Your task to perform on an android device: check the backup settings in the google photos Image 0: 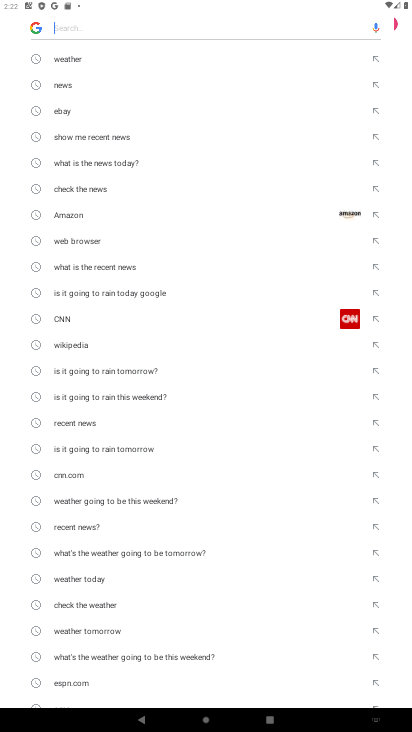
Step 0: press back button
Your task to perform on an android device: check the backup settings in the google photos Image 1: 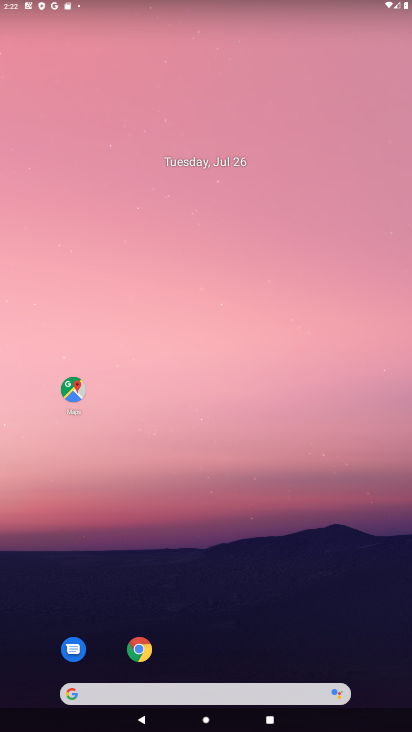
Step 1: drag from (184, 682) to (205, 3)
Your task to perform on an android device: check the backup settings in the google photos Image 2: 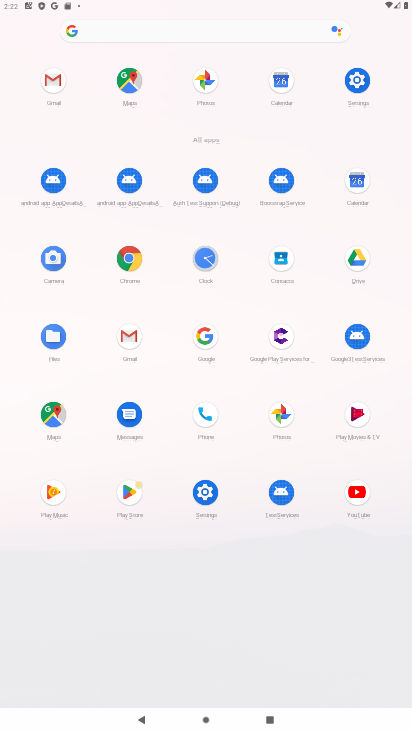
Step 2: click (279, 409)
Your task to perform on an android device: check the backup settings in the google photos Image 3: 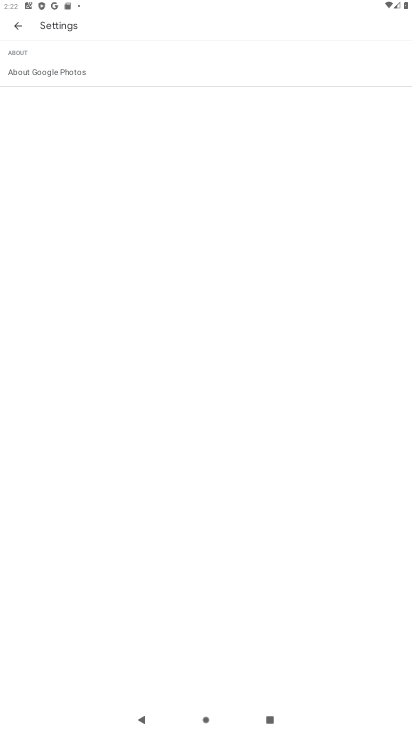
Step 3: click (16, 27)
Your task to perform on an android device: check the backup settings in the google photos Image 4: 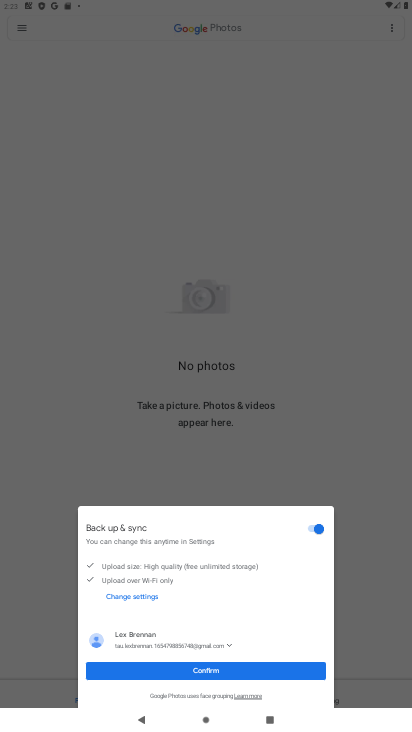
Step 4: click (235, 666)
Your task to perform on an android device: check the backup settings in the google photos Image 5: 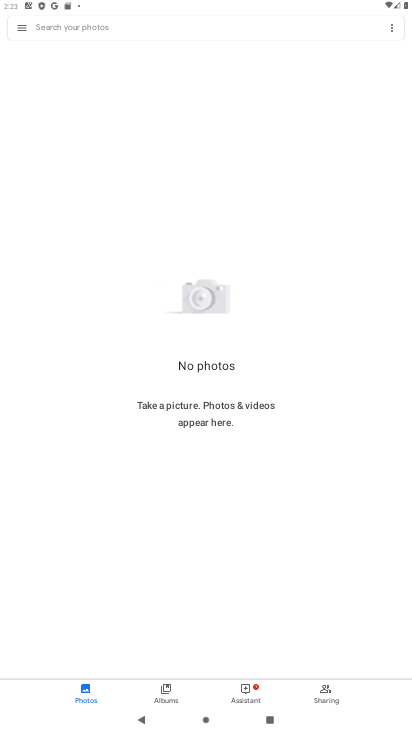
Step 5: click (23, 27)
Your task to perform on an android device: check the backup settings in the google photos Image 6: 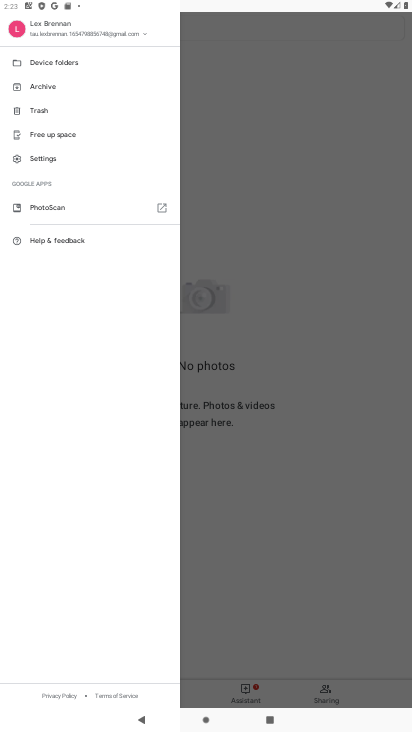
Step 6: click (44, 157)
Your task to perform on an android device: check the backup settings in the google photos Image 7: 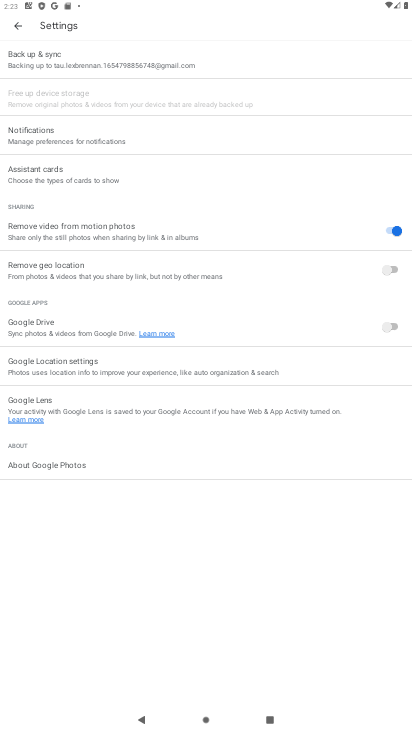
Step 7: click (49, 69)
Your task to perform on an android device: check the backup settings in the google photos Image 8: 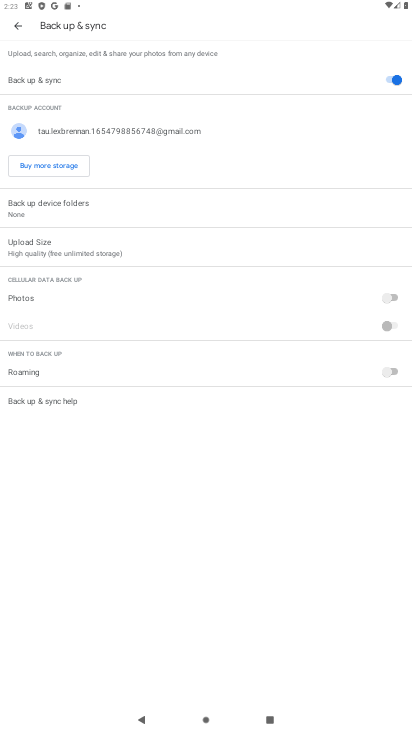
Step 8: task complete